Your task to perform on an android device: open wifi settings Image 0: 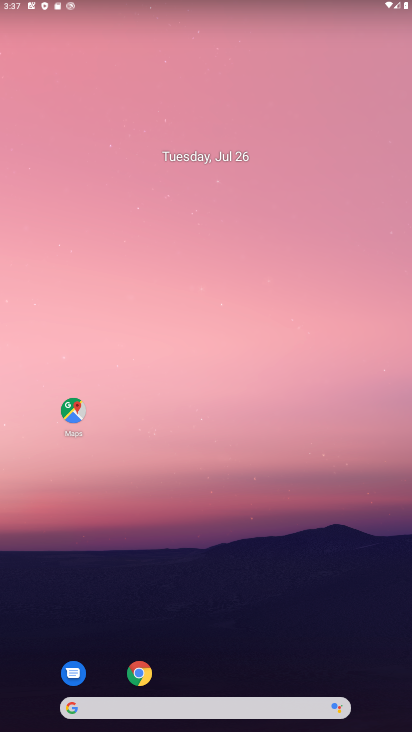
Step 0: drag from (247, 653) to (233, 5)
Your task to perform on an android device: open wifi settings Image 1: 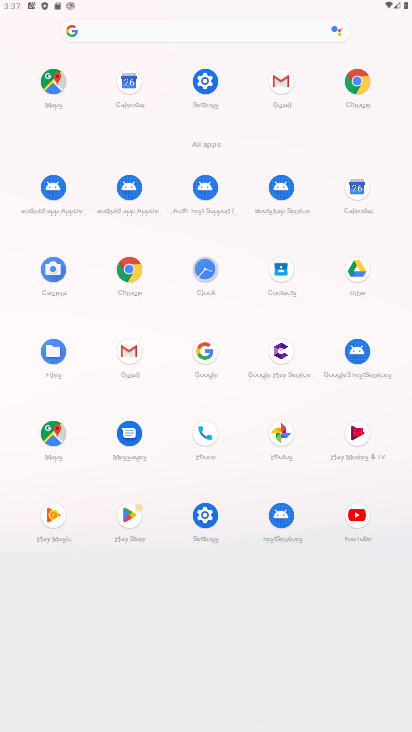
Step 1: click (207, 123)
Your task to perform on an android device: open wifi settings Image 2: 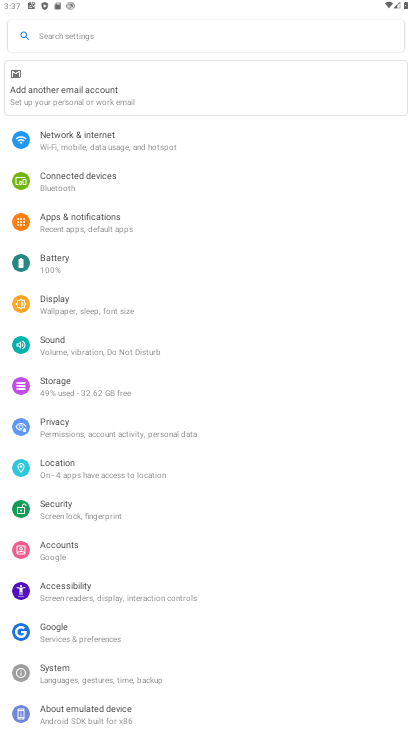
Step 2: click (79, 150)
Your task to perform on an android device: open wifi settings Image 3: 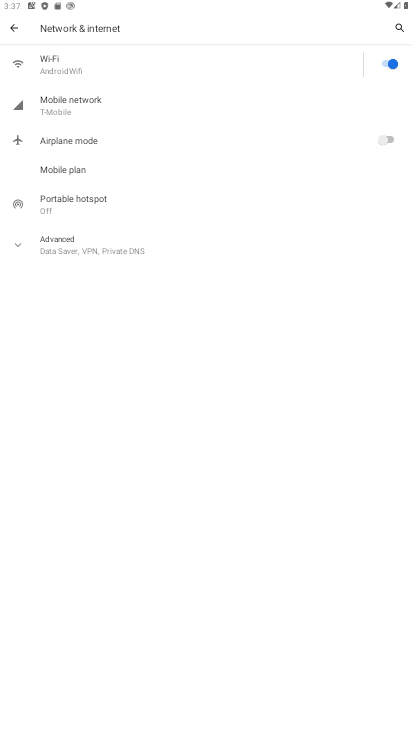
Step 3: click (45, 63)
Your task to perform on an android device: open wifi settings Image 4: 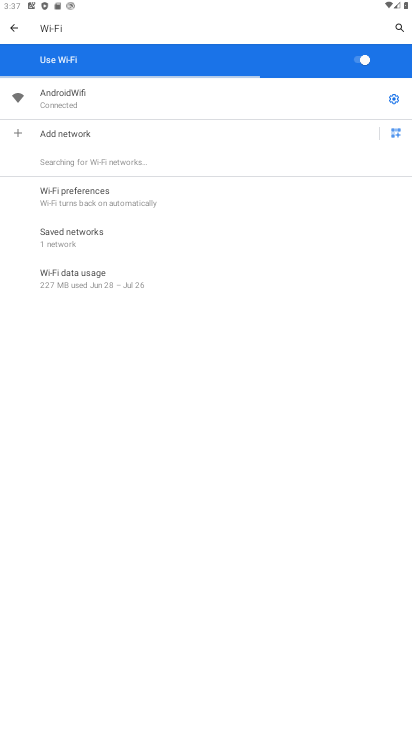
Step 4: task complete